Your task to perform on an android device: Open my contact list Image 0: 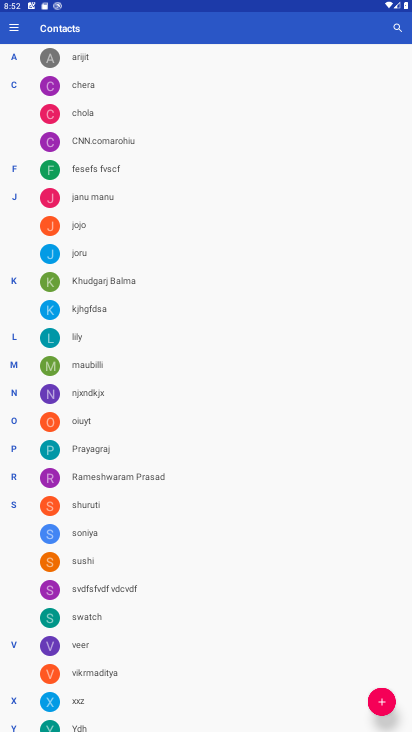
Step 0: drag from (235, 479) to (214, 324)
Your task to perform on an android device: Open my contact list Image 1: 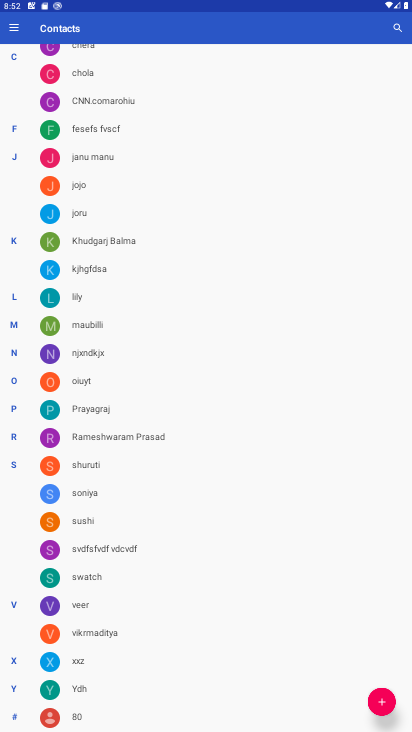
Step 1: task complete